Your task to perform on an android device: Open ESPN.com Image 0: 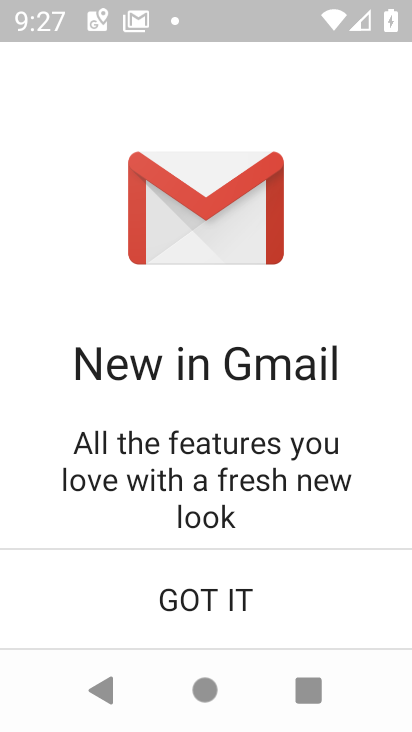
Step 0: press home button
Your task to perform on an android device: Open ESPN.com Image 1: 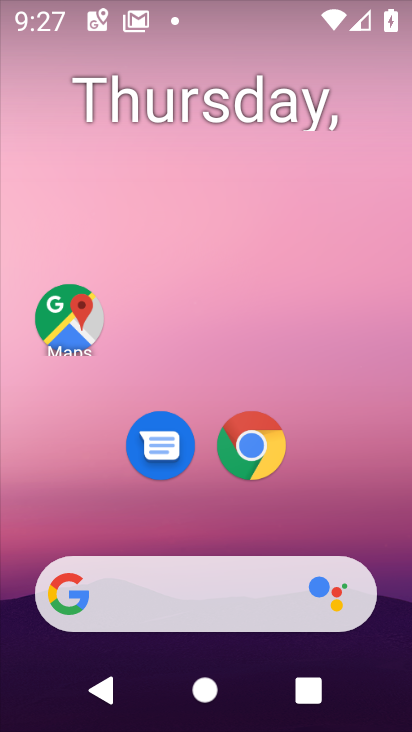
Step 1: click (236, 444)
Your task to perform on an android device: Open ESPN.com Image 2: 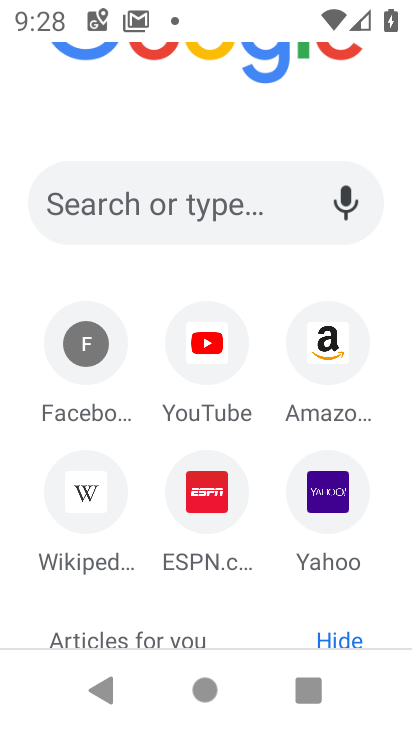
Step 2: click (218, 486)
Your task to perform on an android device: Open ESPN.com Image 3: 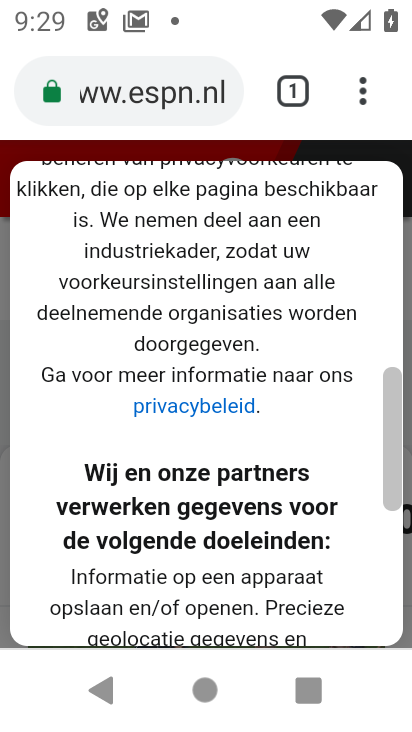
Step 3: task complete